Your task to perform on an android device: Search for a new blush on Sephora Image 0: 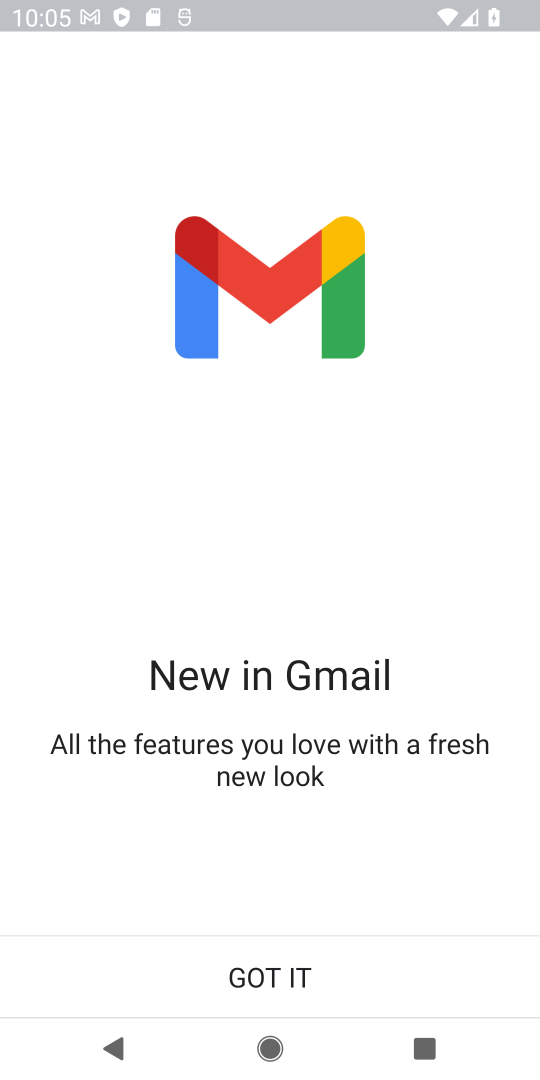
Step 0: press home button
Your task to perform on an android device: Search for a new blush on Sephora Image 1: 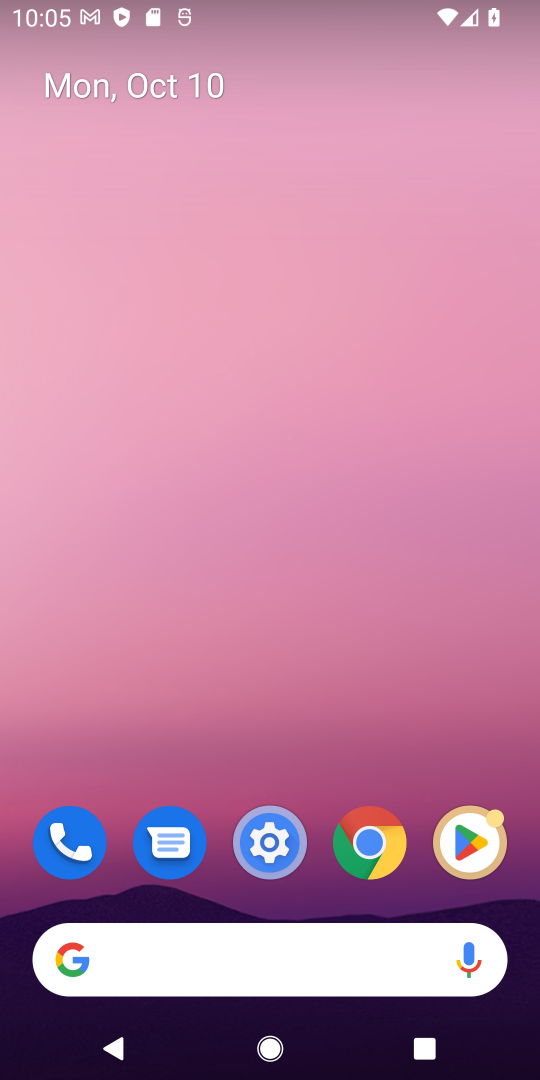
Step 1: click (360, 855)
Your task to perform on an android device: Search for a new blush on Sephora Image 2: 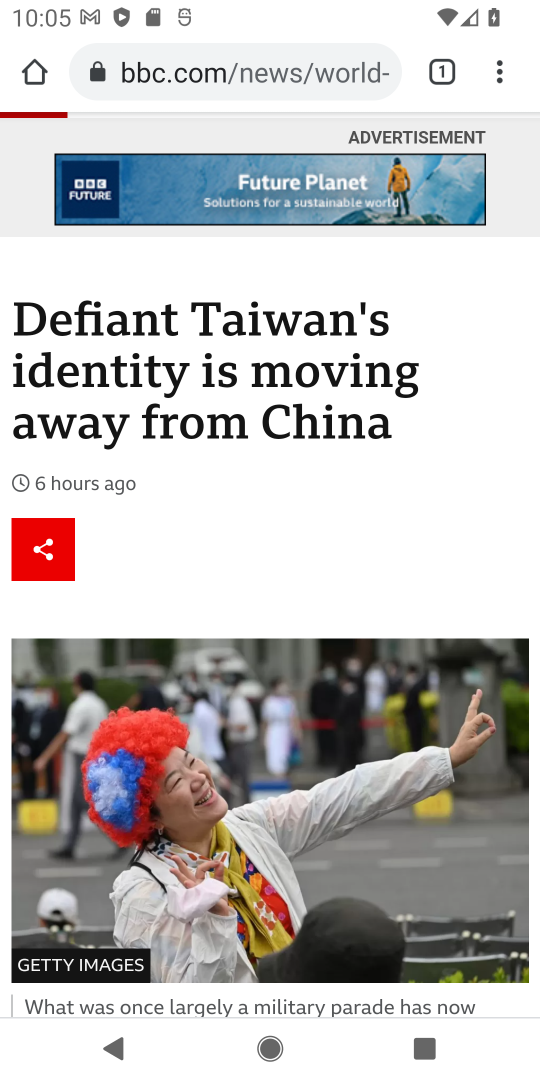
Step 2: click (208, 73)
Your task to perform on an android device: Search for a new blush on Sephora Image 3: 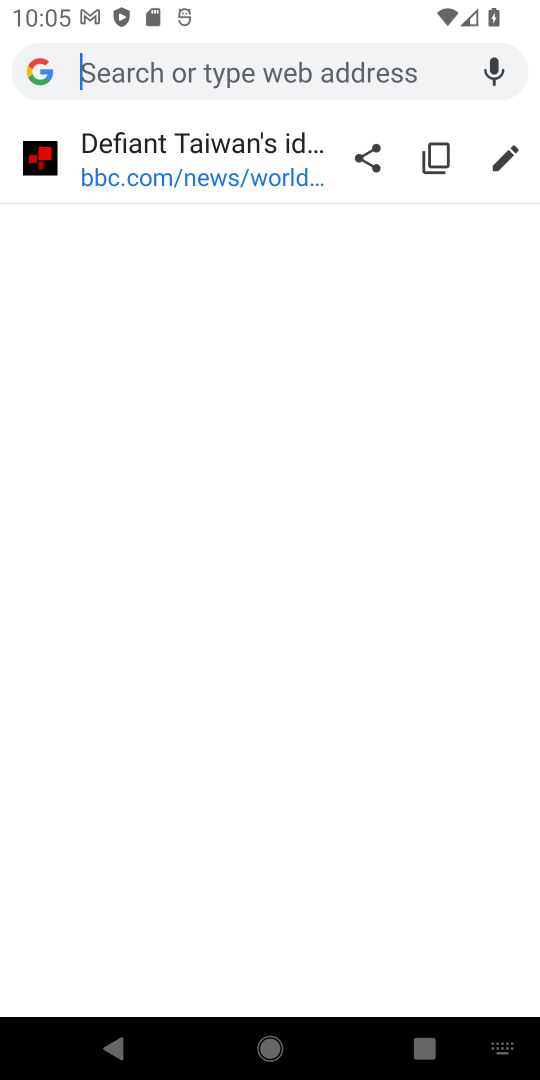
Step 3: type "new blush on Sephora"
Your task to perform on an android device: Search for a new blush on Sephora Image 4: 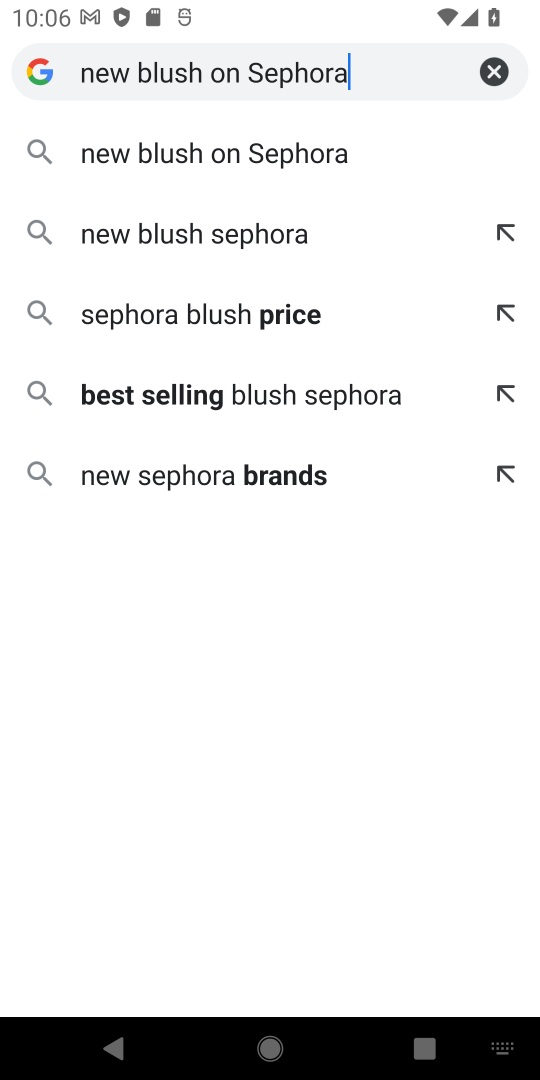
Step 4: click (245, 165)
Your task to perform on an android device: Search for a new blush on Sephora Image 5: 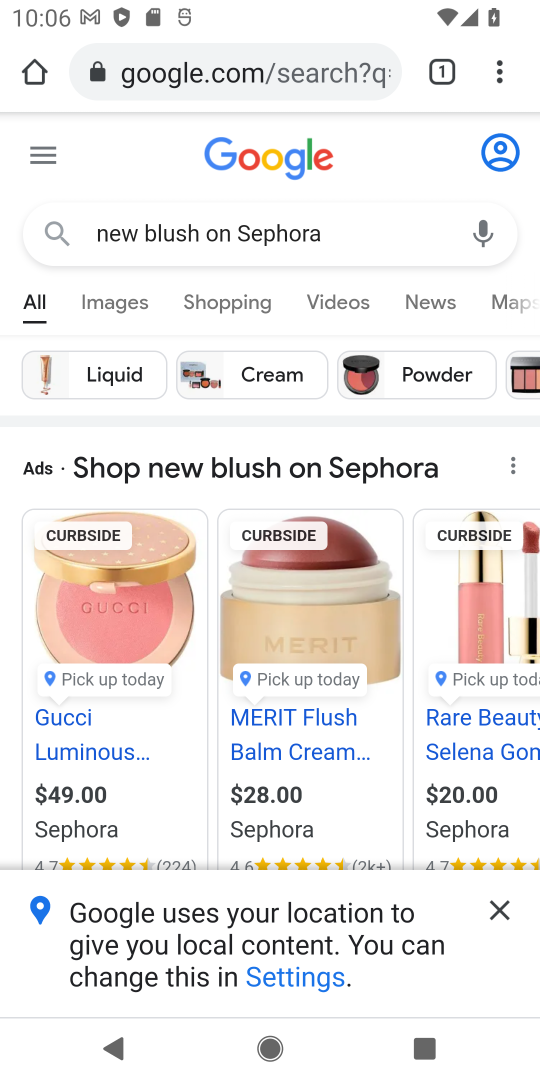
Step 5: task complete